Your task to perform on an android device: choose inbox layout in the gmail app Image 0: 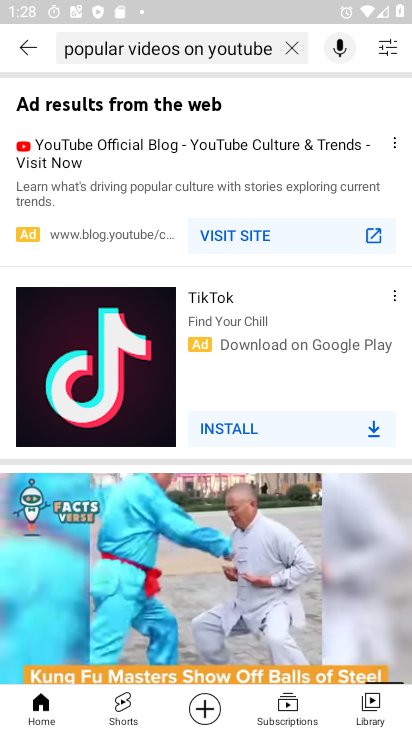
Step 0: press home button
Your task to perform on an android device: choose inbox layout in the gmail app Image 1: 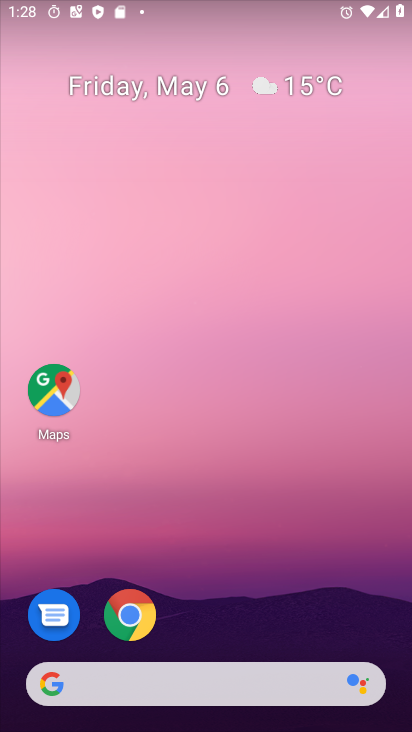
Step 1: drag from (276, 550) to (227, 38)
Your task to perform on an android device: choose inbox layout in the gmail app Image 2: 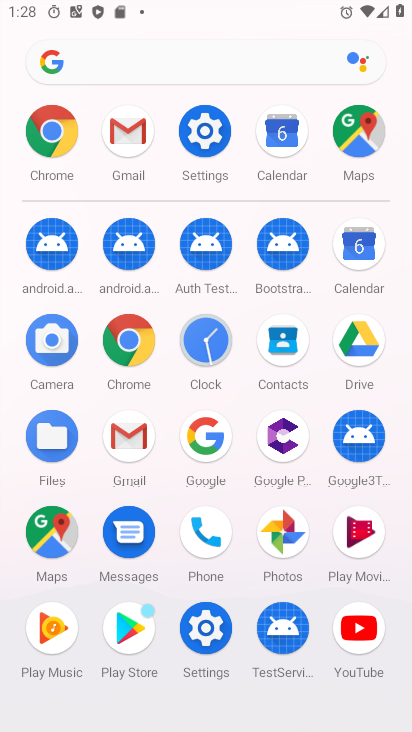
Step 2: click (126, 431)
Your task to perform on an android device: choose inbox layout in the gmail app Image 3: 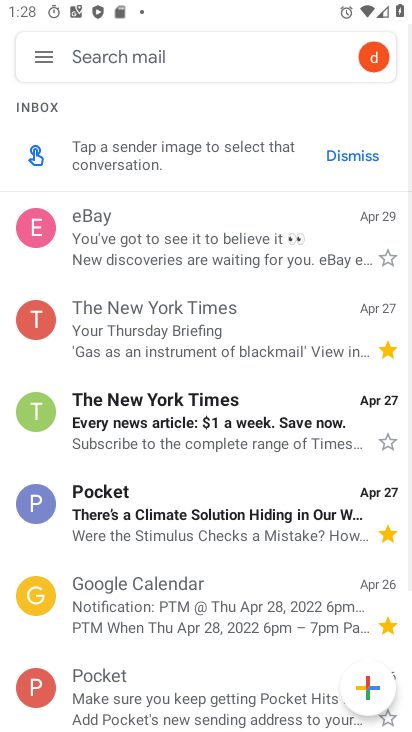
Step 3: click (39, 48)
Your task to perform on an android device: choose inbox layout in the gmail app Image 4: 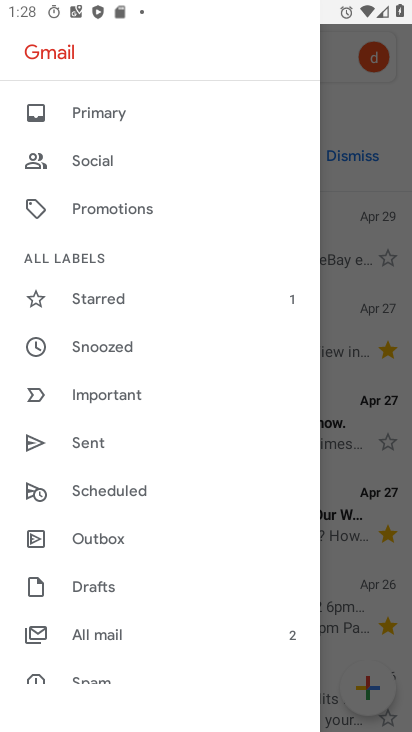
Step 4: drag from (198, 595) to (217, 185)
Your task to perform on an android device: choose inbox layout in the gmail app Image 5: 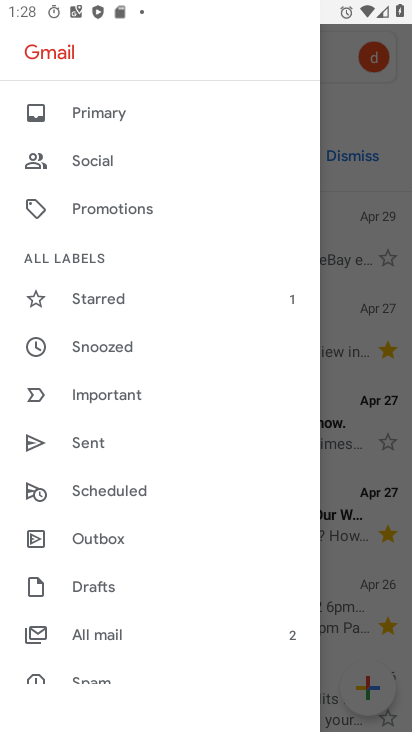
Step 5: drag from (141, 623) to (138, 212)
Your task to perform on an android device: choose inbox layout in the gmail app Image 6: 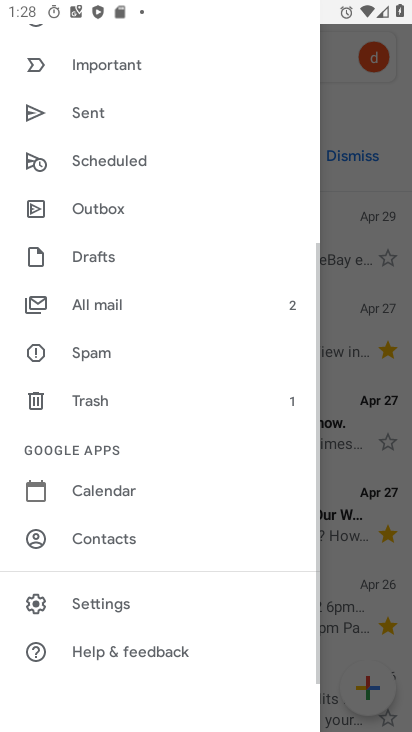
Step 6: click (126, 593)
Your task to perform on an android device: choose inbox layout in the gmail app Image 7: 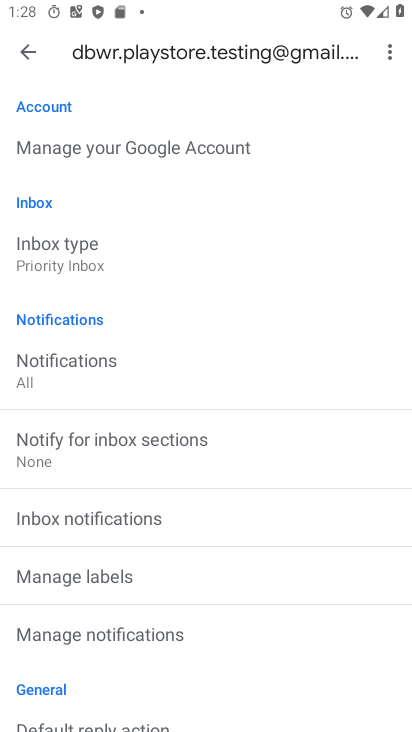
Step 7: click (89, 254)
Your task to perform on an android device: choose inbox layout in the gmail app Image 8: 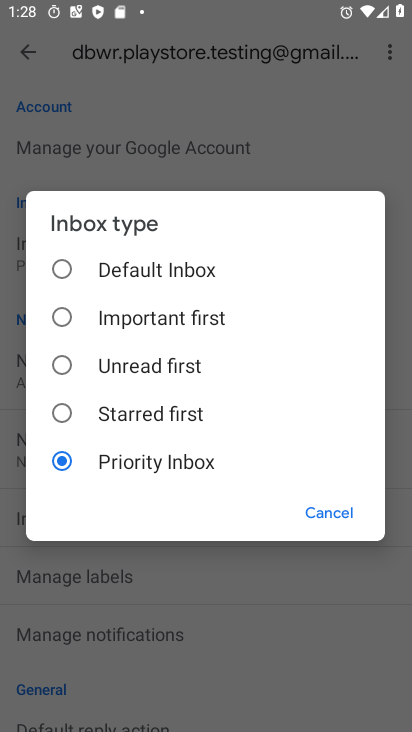
Step 8: click (57, 270)
Your task to perform on an android device: choose inbox layout in the gmail app Image 9: 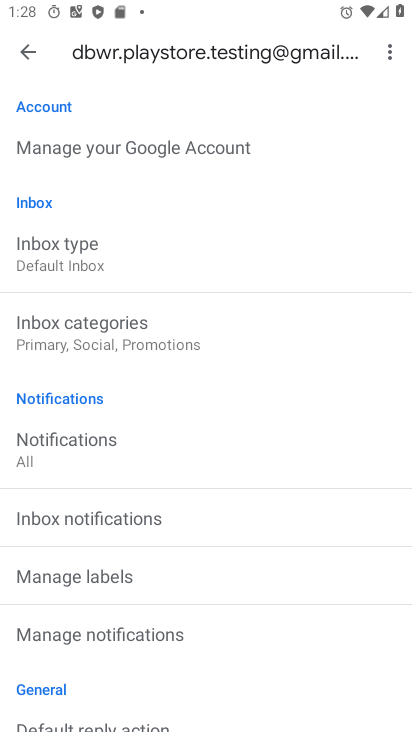
Step 9: task complete